Your task to perform on an android device: see creations saved in the google photos Image 0: 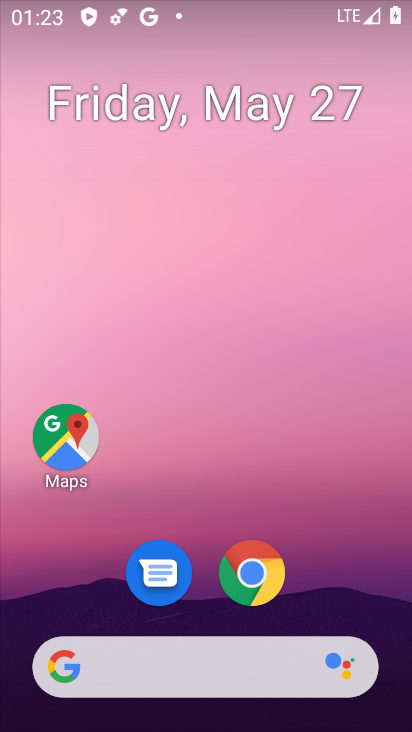
Step 0: drag from (207, 610) to (148, 135)
Your task to perform on an android device: see creations saved in the google photos Image 1: 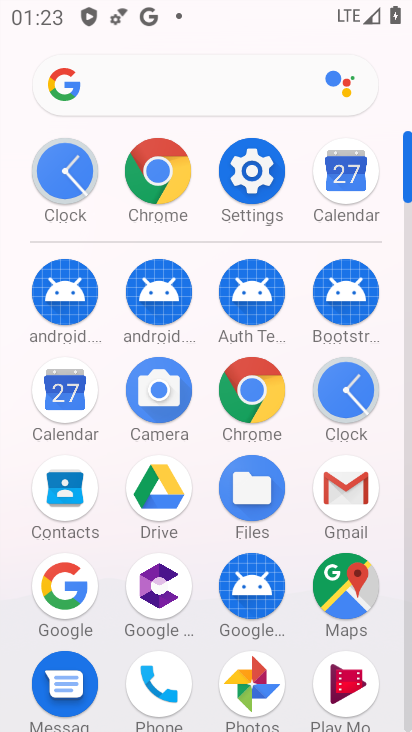
Step 1: click (260, 662)
Your task to perform on an android device: see creations saved in the google photos Image 2: 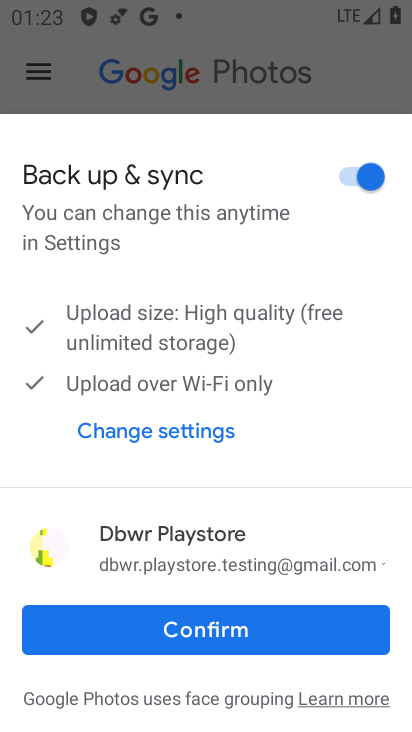
Step 2: click (215, 629)
Your task to perform on an android device: see creations saved in the google photos Image 3: 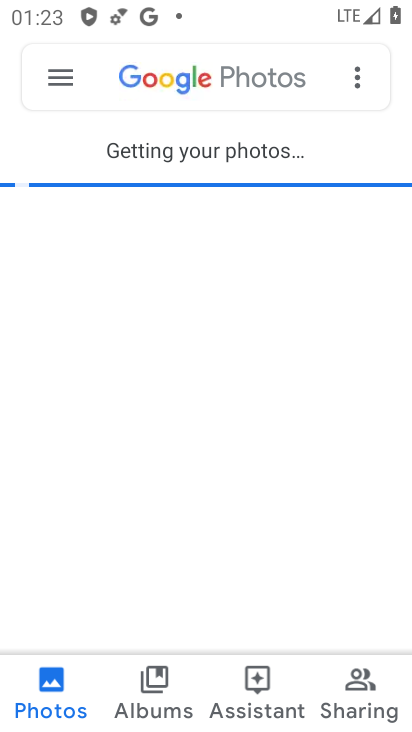
Step 3: click (162, 70)
Your task to perform on an android device: see creations saved in the google photos Image 4: 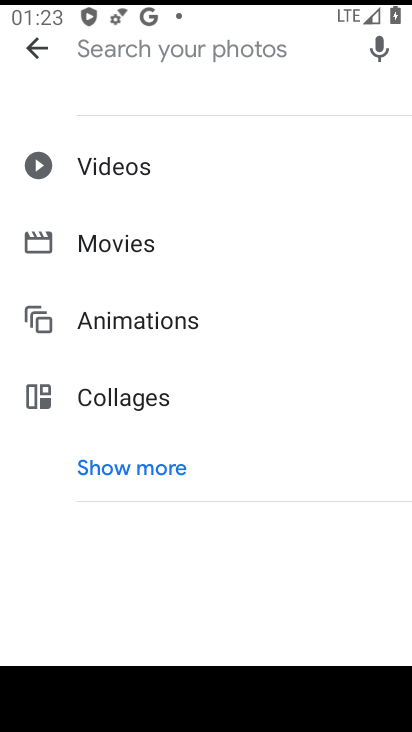
Step 4: click (133, 473)
Your task to perform on an android device: see creations saved in the google photos Image 5: 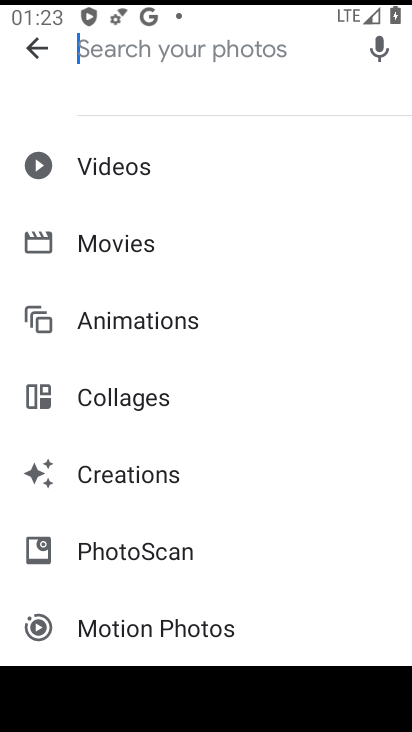
Step 5: click (147, 472)
Your task to perform on an android device: see creations saved in the google photos Image 6: 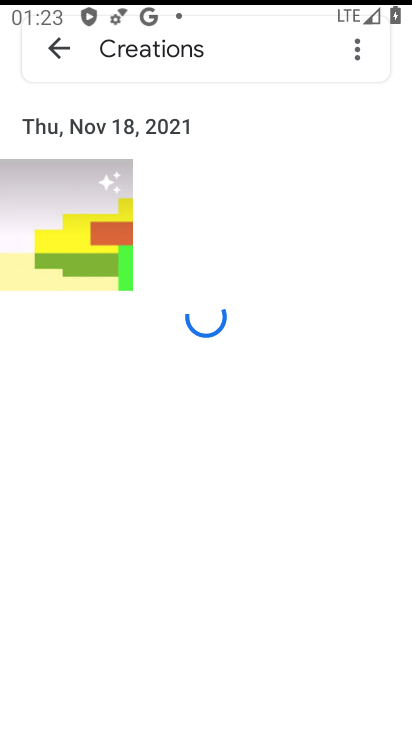
Step 6: task complete